Your task to perform on an android device: Open calendar and show me the third week of next month Image 0: 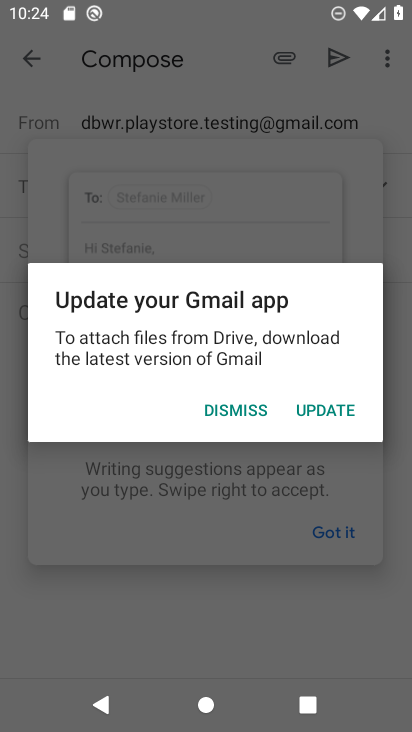
Step 0: press home button
Your task to perform on an android device: Open calendar and show me the third week of next month Image 1: 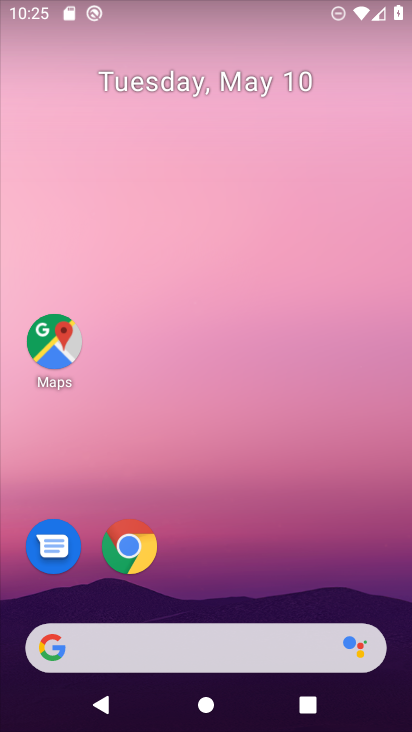
Step 1: drag from (252, 598) to (284, 158)
Your task to perform on an android device: Open calendar and show me the third week of next month Image 2: 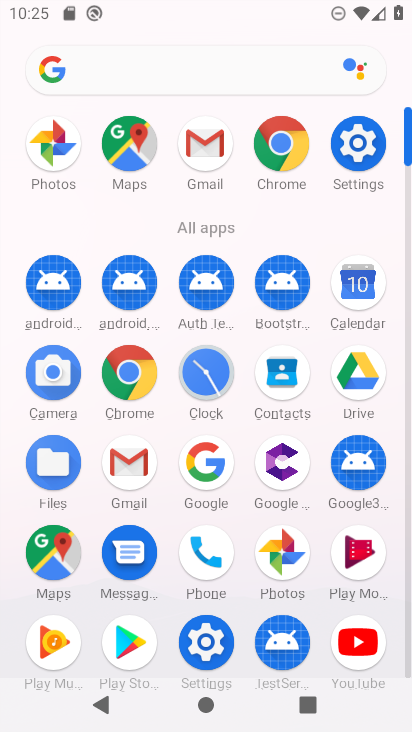
Step 2: click (359, 280)
Your task to perform on an android device: Open calendar and show me the third week of next month Image 3: 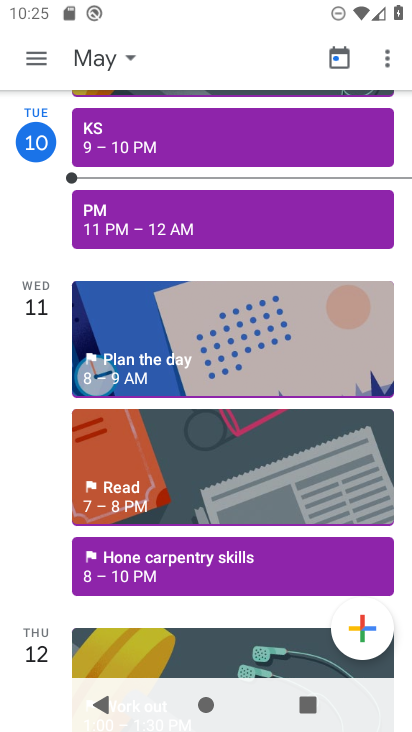
Step 3: click (110, 69)
Your task to perform on an android device: Open calendar and show me the third week of next month Image 4: 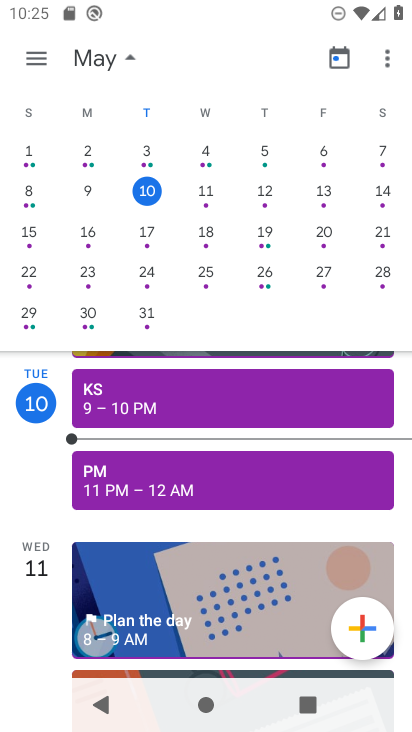
Step 4: drag from (372, 275) to (72, 246)
Your task to perform on an android device: Open calendar and show me the third week of next month Image 5: 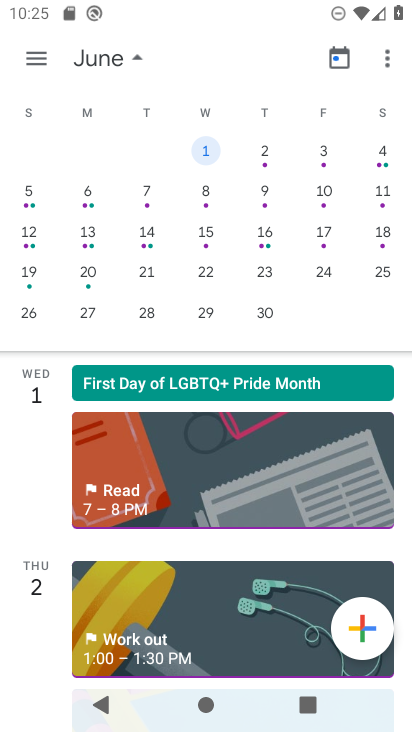
Step 5: click (34, 268)
Your task to perform on an android device: Open calendar and show me the third week of next month Image 6: 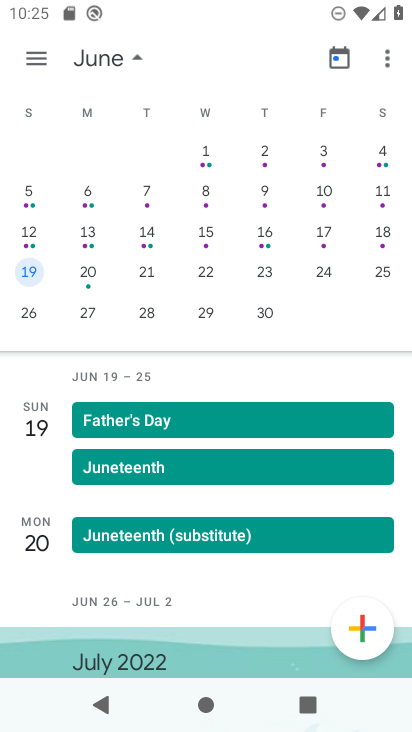
Step 6: task complete